Your task to perform on an android device: turn smart compose on in the gmail app Image 0: 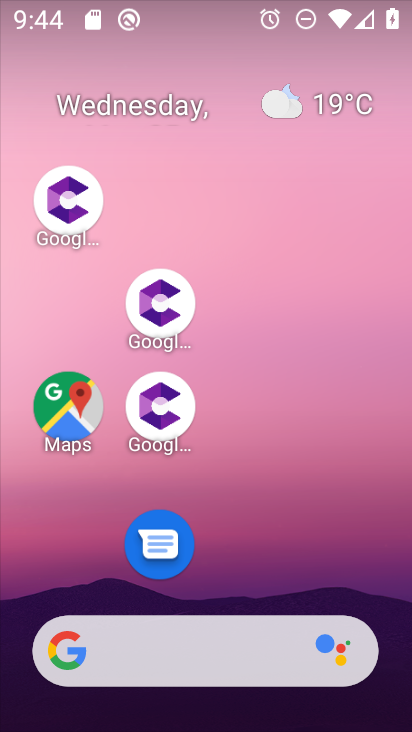
Step 0: drag from (262, 520) to (258, 103)
Your task to perform on an android device: turn smart compose on in the gmail app Image 1: 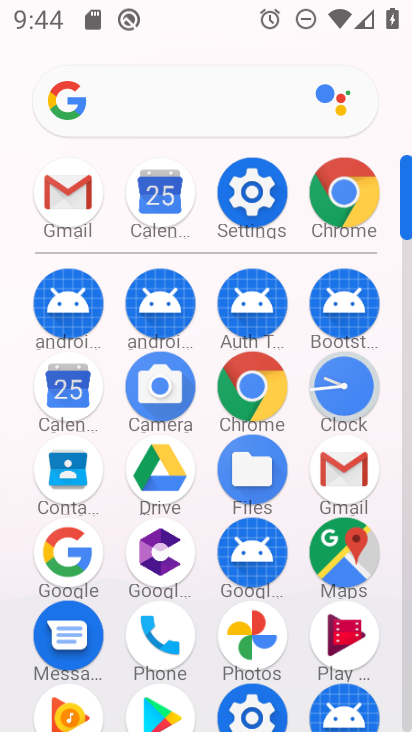
Step 1: click (71, 188)
Your task to perform on an android device: turn smart compose on in the gmail app Image 2: 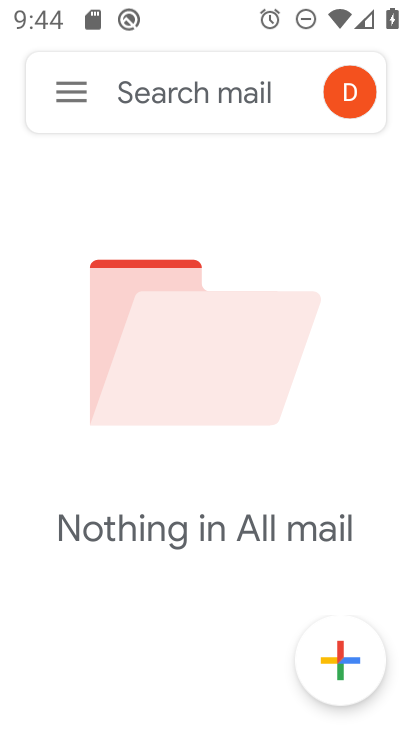
Step 2: click (65, 97)
Your task to perform on an android device: turn smart compose on in the gmail app Image 3: 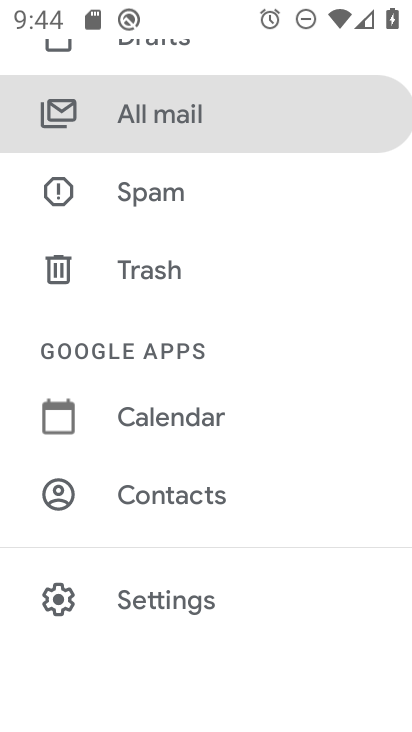
Step 3: click (155, 591)
Your task to perform on an android device: turn smart compose on in the gmail app Image 4: 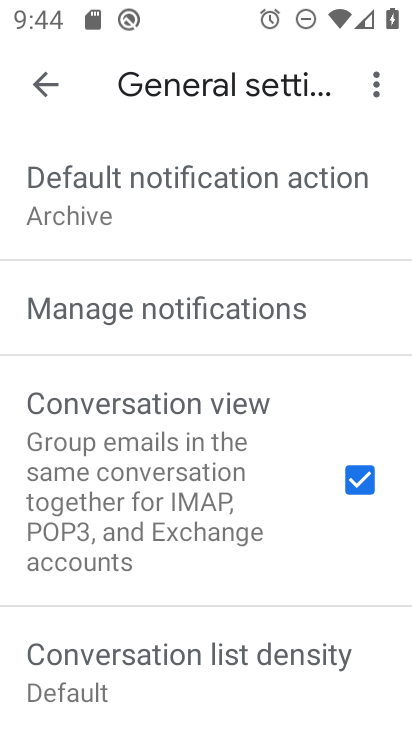
Step 4: drag from (155, 584) to (155, 48)
Your task to perform on an android device: turn smart compose on in the gmail app Image 5: 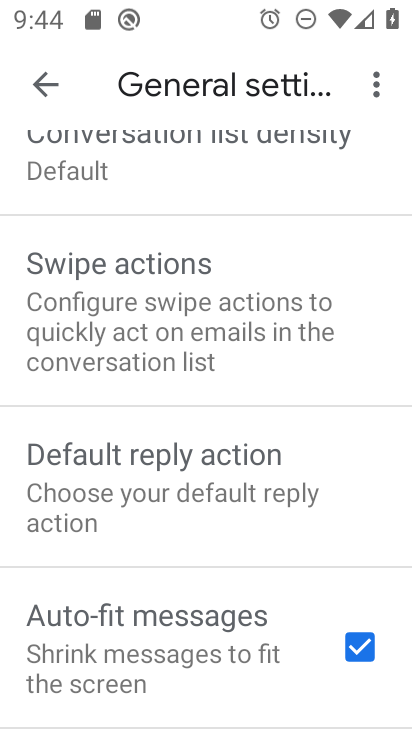
Step 5: click (48, 79)
Your task to perform on an android device: turn smart compose on in the gmail app Image 6: 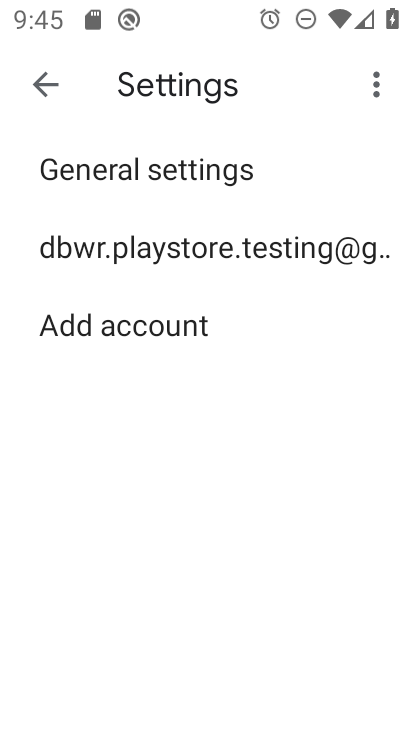
Step 6: click (98, 256)
Your task to perform on an android device: turn smart compose on in the gmail app Image 7: 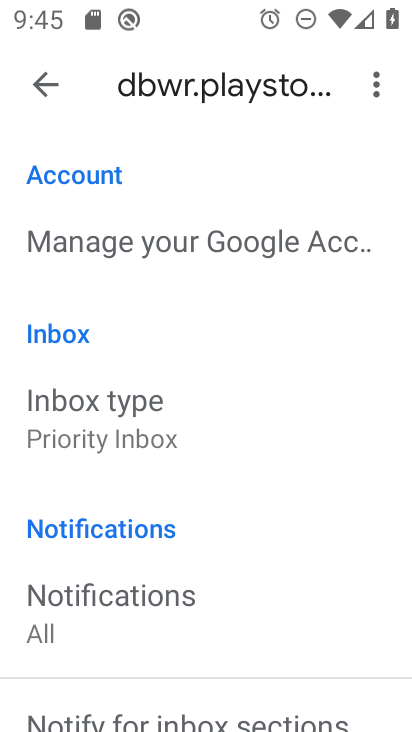
Step 7: task complete